Your task to perform on an android device: Open Maps and search for coffee Image 0: 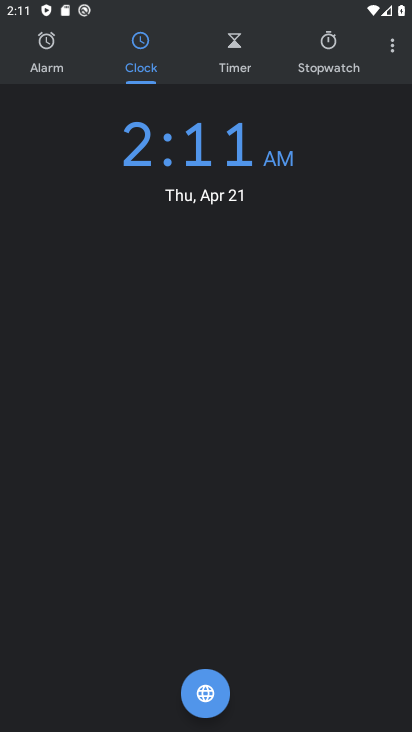
Step 0: press home button
Your task to perform on an android device: Open Maps and search for coffee Image 1: 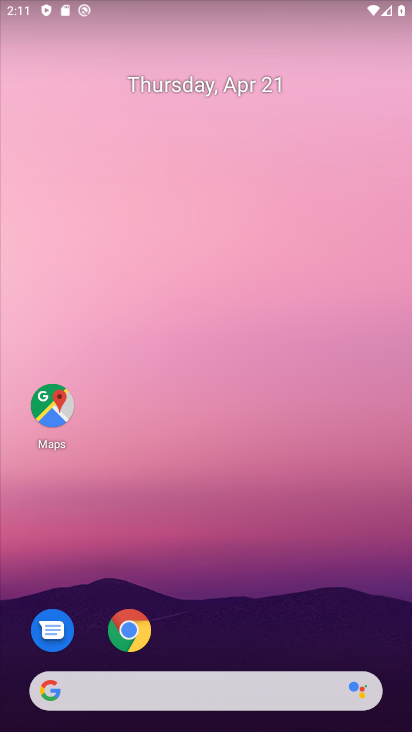
Step 1: drag from (332, 638) to (355, 118)
Your task to perform on an android device: Open Maps and search for coffee Image 2: 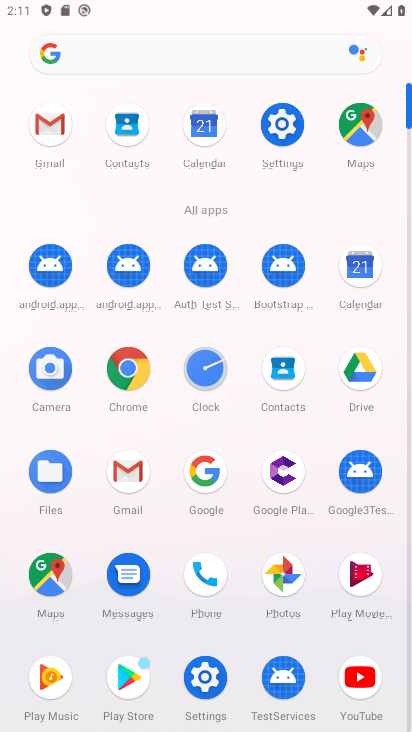
Step 2: click (44, 578)
Your task to perform on an android device: Open Maps and search for coffee Image 3: 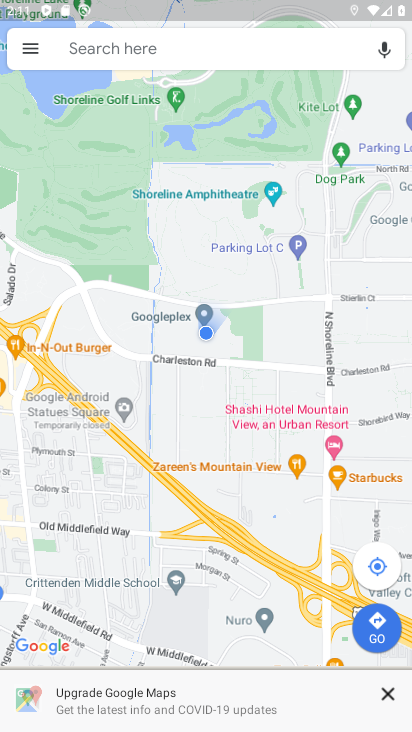
Step 3: click (239, 46)
Your task to perform on an android device: Open Maps and search for coffee Image 4: 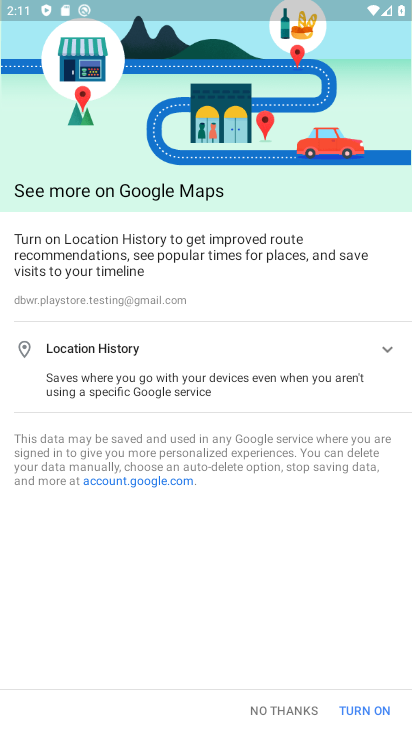
Step 4: click (309, 707)
Your task to perform on an android device: Open Maps and search for coffee Image 5: 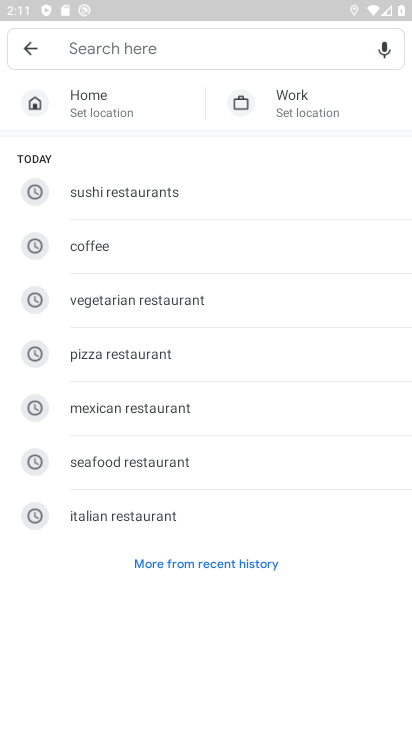
Step 5: click (198, 50)
Your task to perform on an android device: Open Maps and search for coffee Image 6: 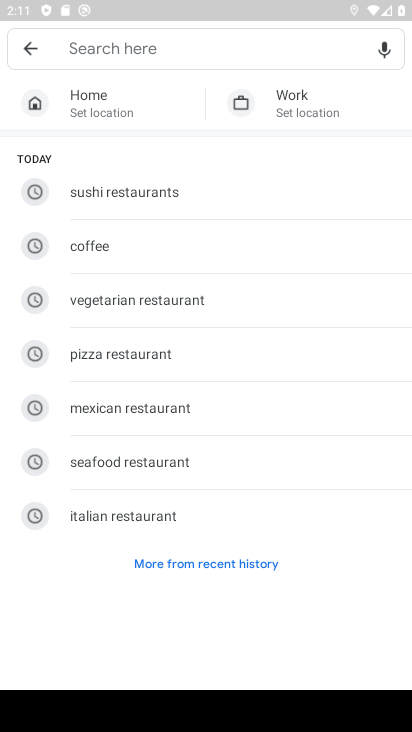
Step 6: type "coffee"
Your task to perform on an android device: Open Maps and search for coffee Image 7: 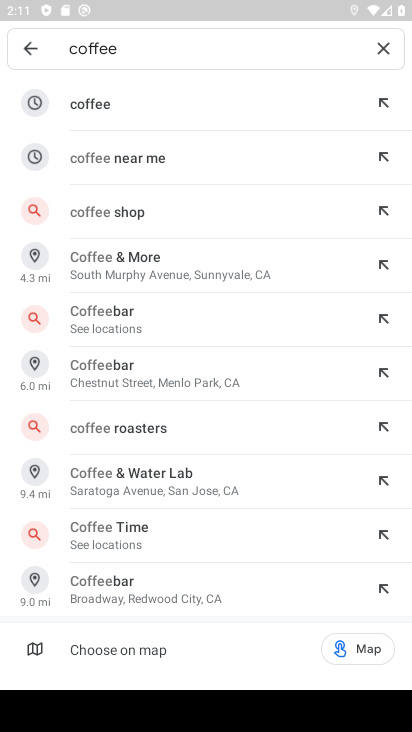
Step 7: click (158, 117)
Your task to perform on an android device: Open Maps and search for coffee Image 8: 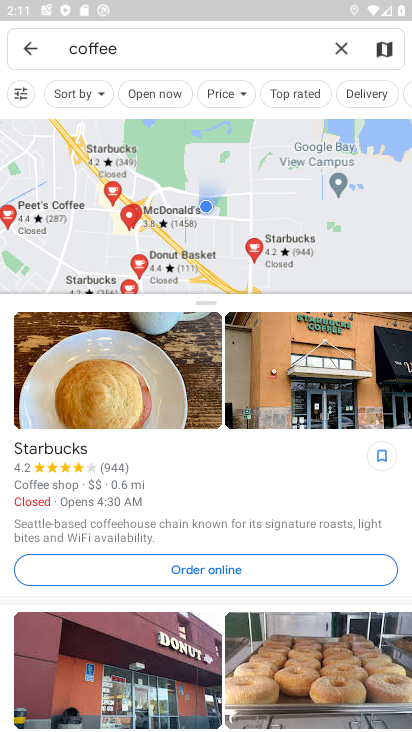
Step 8: task complete